Your task to perform on an android device: Go to display settings Image 0: 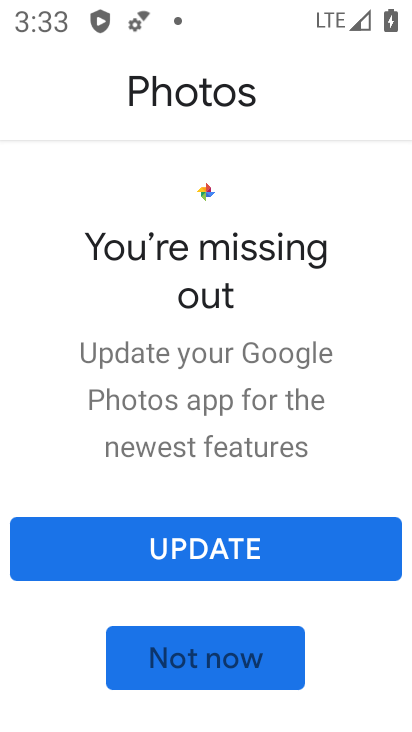
Step 0: press back button
Your task to perform on an android device: Go to display settings Image 1: 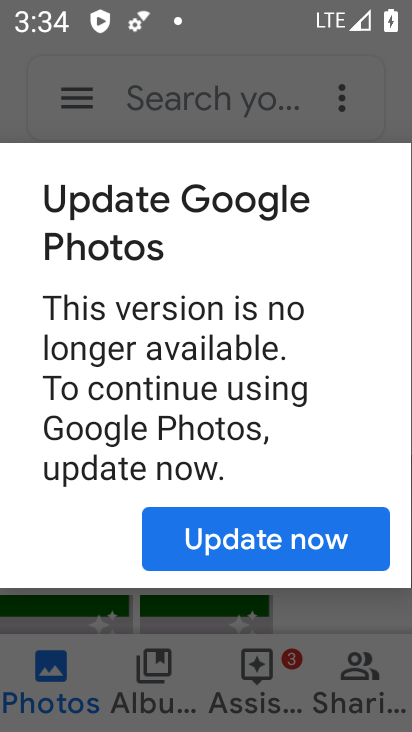
Step 1: press home button
Your task to perform on an android device: Go to display settings Image 2: 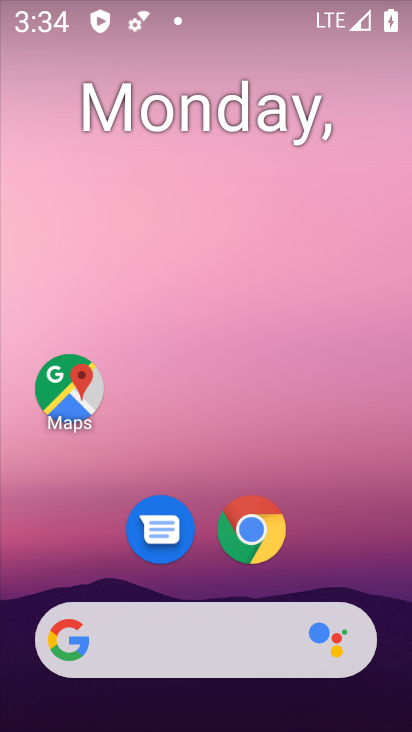
Step 2: drag from (188, 653) to (221, 184)
Your task to perform on an android device: Go to display settings Image 3: 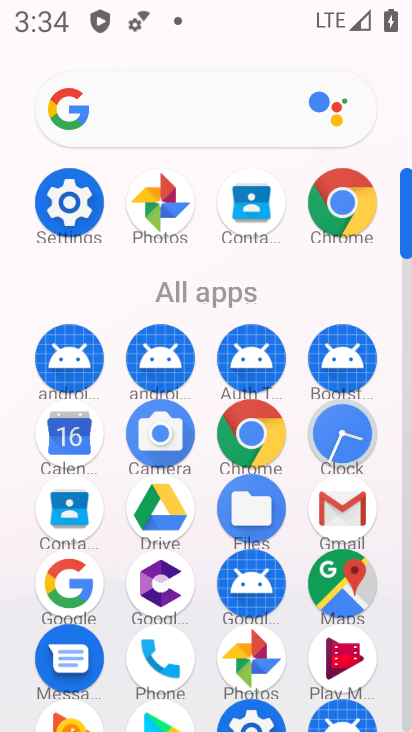
Step 3: click (65, 218)
Your task to perform on an android device: Go to display settings Image 4: 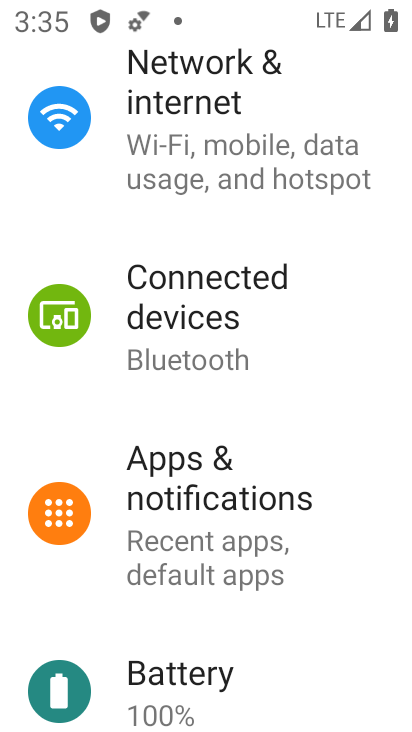
Step 4: drag from (186, 496) to (177, 0)
Your task to perform on an android device: Go to display settings Image 5: 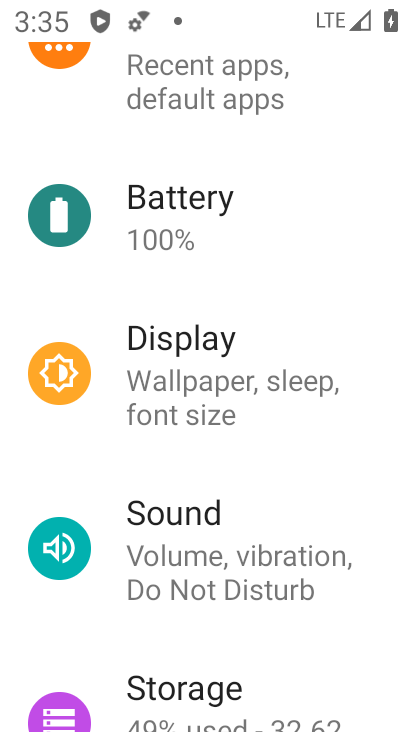
Step 5: click (239, 413)
Your task to perform on an android device: Go to display settings Image 6: 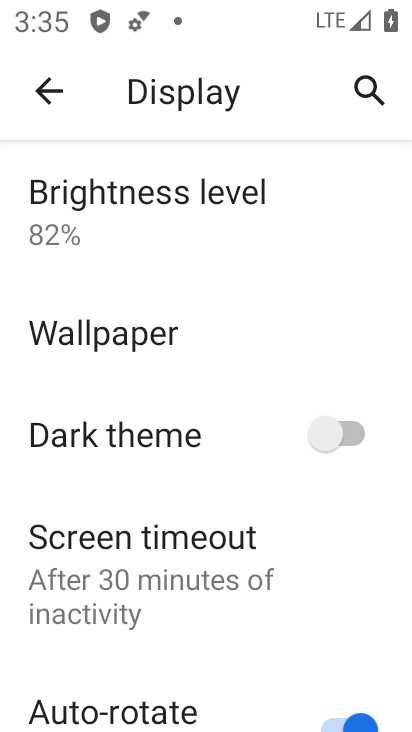
Step 6: task complete